Your task to perform on an android device: Open Chrome and go to settings Image 0: 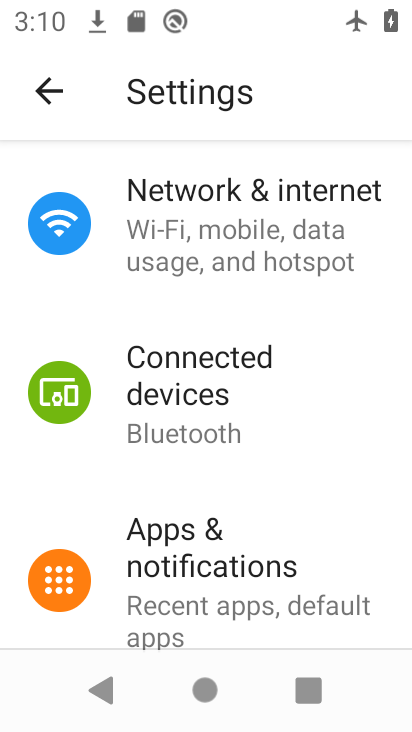
Step 0: press home button
Your task to perform on an android device: Open Chrome and go to settings Image 1: 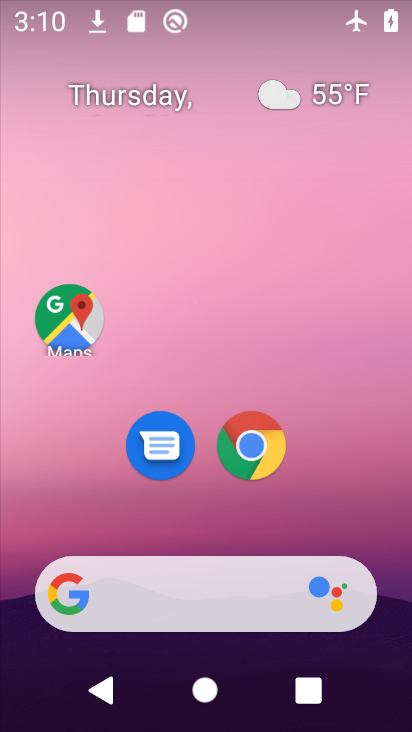
Step 1: drag from (333, 506) to (407, 101)
Your task to perform on an android device: Open Chrome and go to settings Image 2: 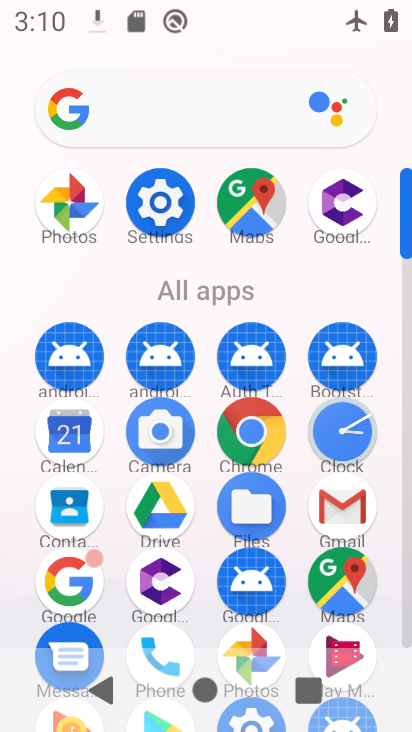
Step 2: click (239, 427)
Your task to perform on an android device: Open Chrome and go to settings Image 3: 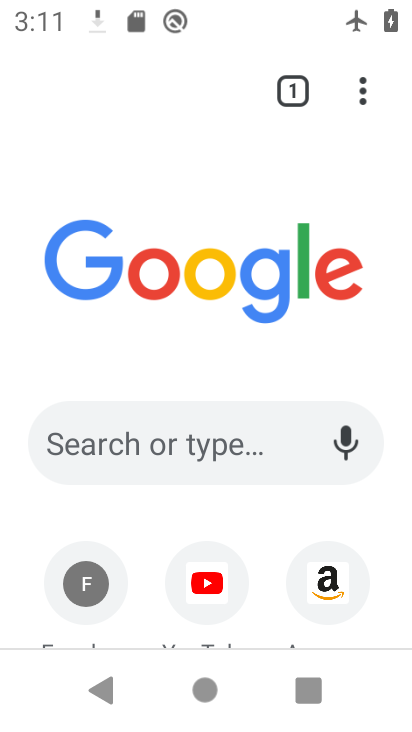
Step 3: task complete